Your task to perform on an android device: Check the news Image 0: 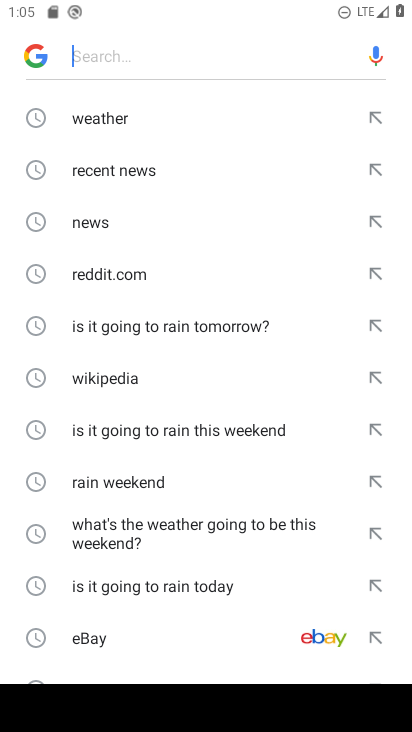
Step 0: press home button
Your task to perform on an android device: Check the news Image 1: 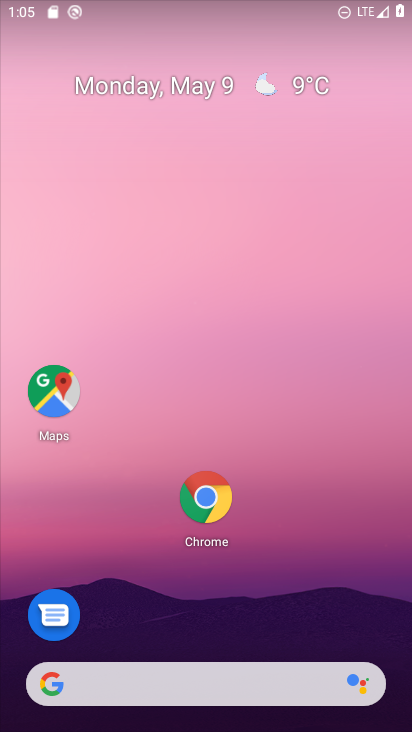
Step 1: drag from (345, 585) to (213, 105)
Your task to perform on an android device: Check the news Image 2: 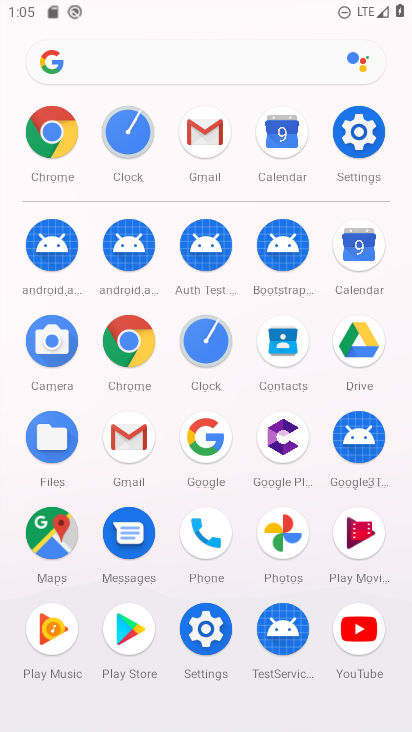
Step 2: click (130, 336)
Your task to perform on an android device: Check the news Image 3: 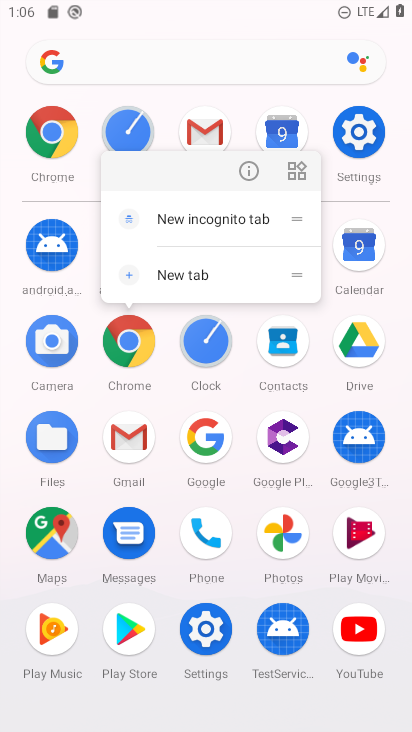
Step 3: click (116, 342)
Your task to perform on an android device: Check the news Image 4: 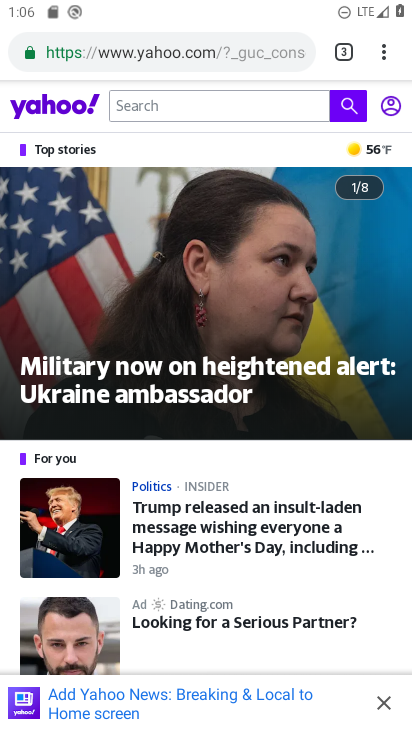
Step 4: click (172, 49)
Your task to perform on an android device: Check the news Image 5: 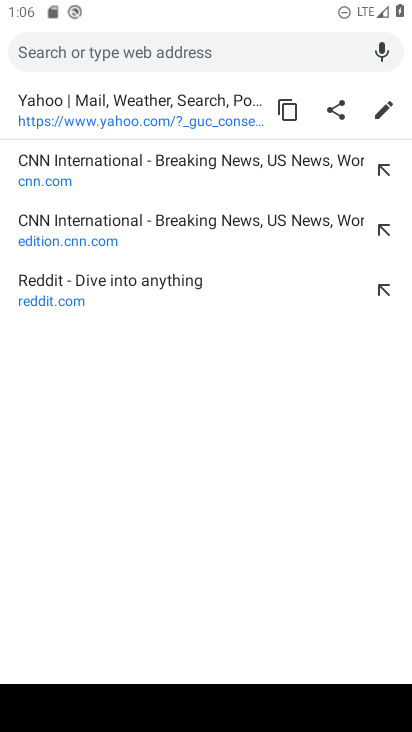
Step 5: type "news"
Your task to perform on an android device: Check the news Image 6: 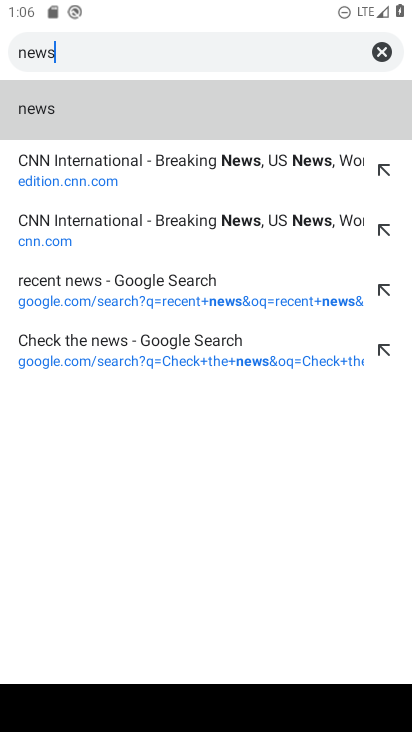
Step 6: click (73, 121)
Your task to perform on an android device: Check the news Image 7: 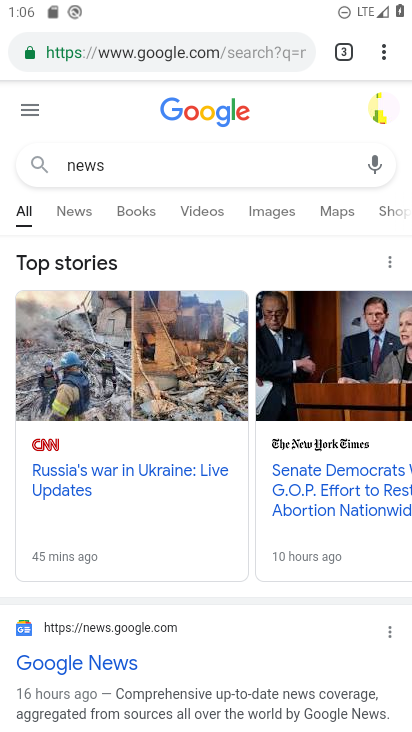
Step 7: click (82, 213)
Your task to perform on an android device: Check the news Image 8: 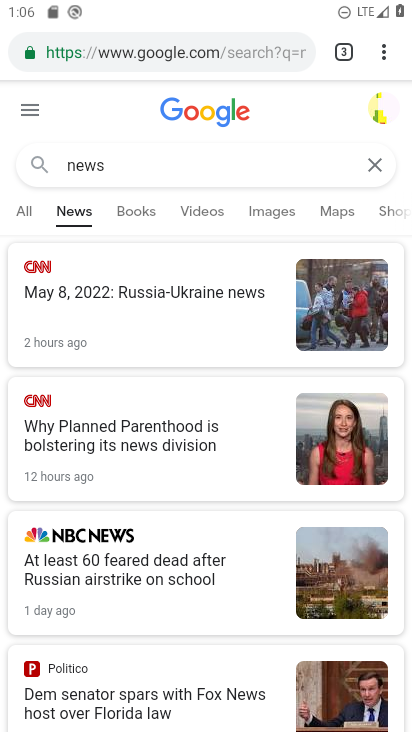
Step 8: task complete